Your task to perform on an android device: add a label to a message in the gmail app Image 0: 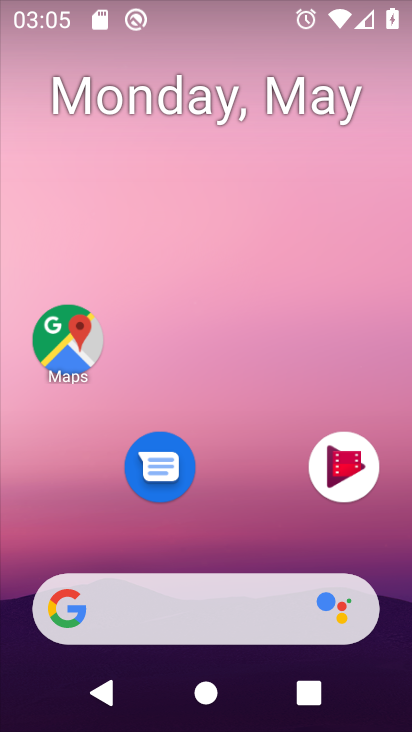
Step 0: drag from (228, 537) to (286, 211)
Your task to perform on an android device: add a label to a message in the gmail app Image 1: 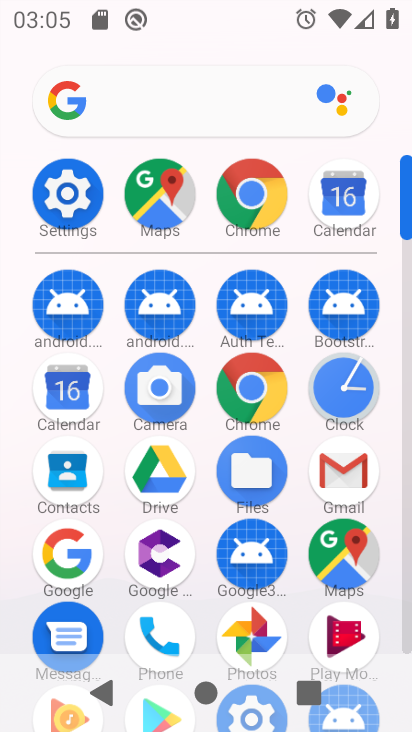
Step 1: click (344, 467)
Your task to perform on an android device: add a label to a message in the gmail app Image 2: 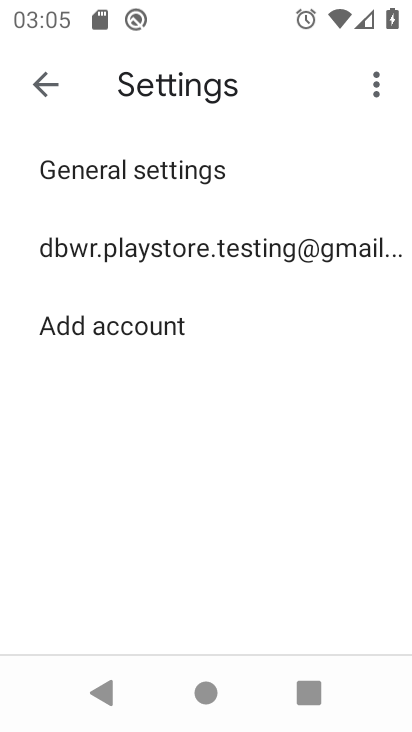
Step 2: click (264, 239)
Your task to perform on an android device: add a label to a message in the gmail app Image 3: 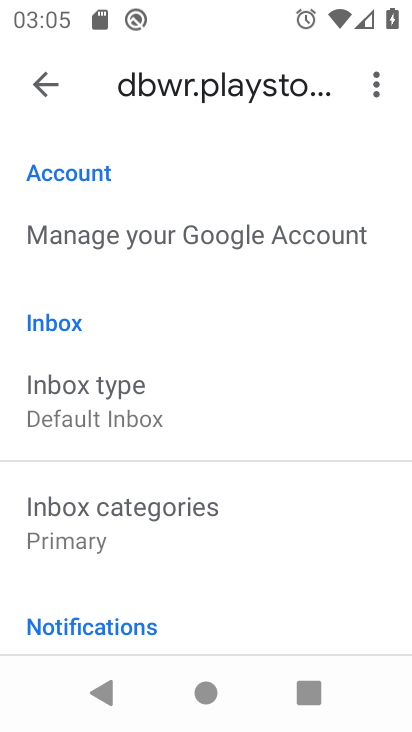
Step 3: click (24, 70)
Your task to perform on an android device: add a label to a message in the gmail app Image 4: 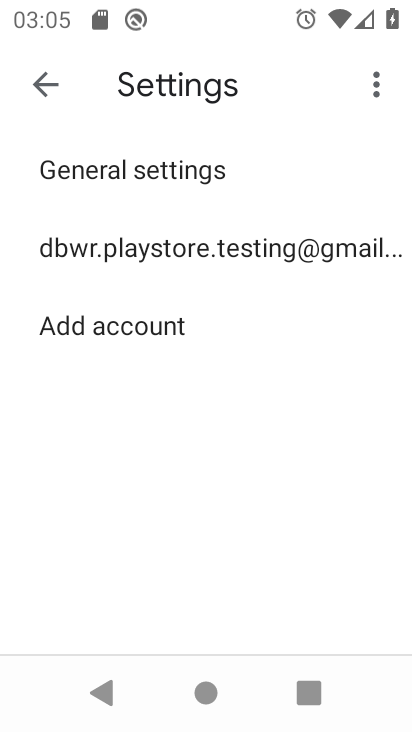
Step 4: click (55, 78)
Your task to perform on an android device: add a label to a message in the gmail app Image 5: 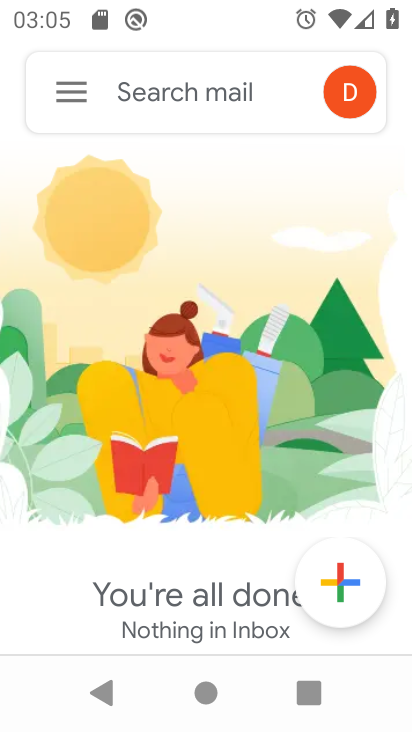
Step 5: click (54, 93)
Your task to perform on an android device: add a label to a message in the gmail app Image 6: 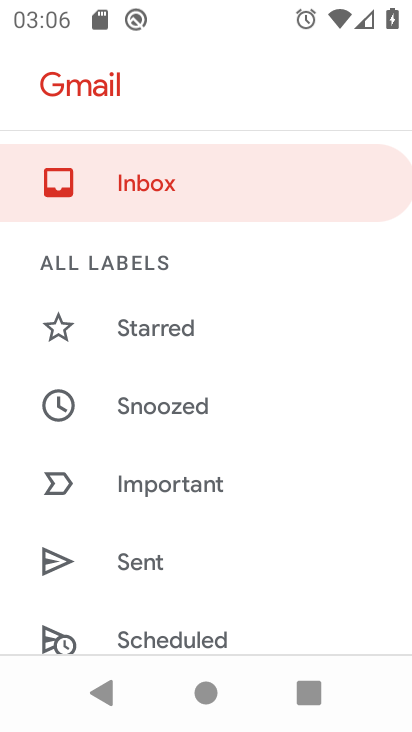
Step 6: drag from (177, 602) to (281, 329)
Your task to perform on an android device: add a label to a message in the gmail app Image 7: 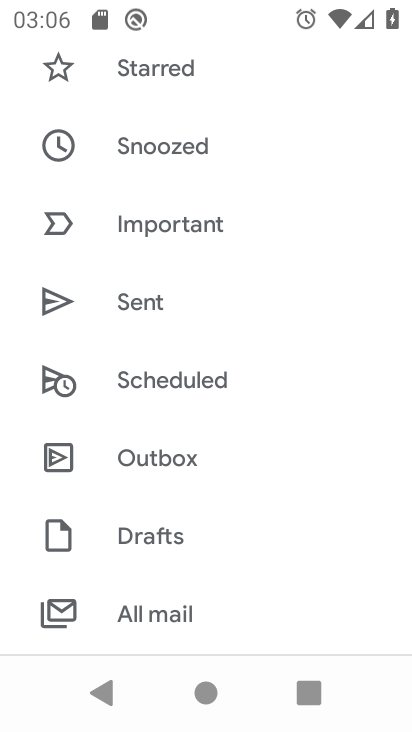
Step 7: click (170, 599)
Your task to perform on an android device: add a label to a message in the gmail app Image 8: 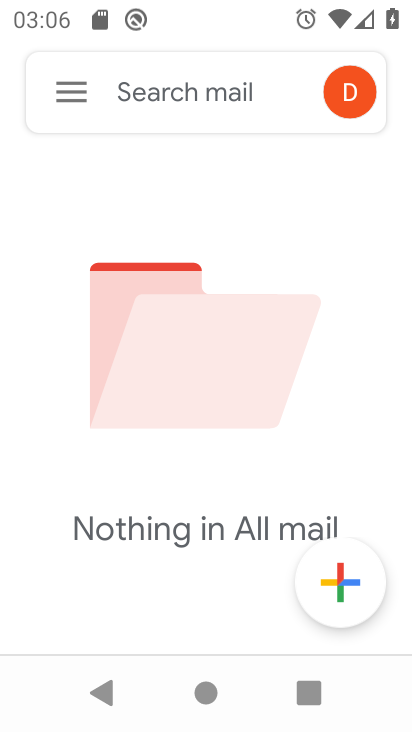
Step 8: task complete